Your task to perform on an android device: Do I have any events tomorrow? Image 0: 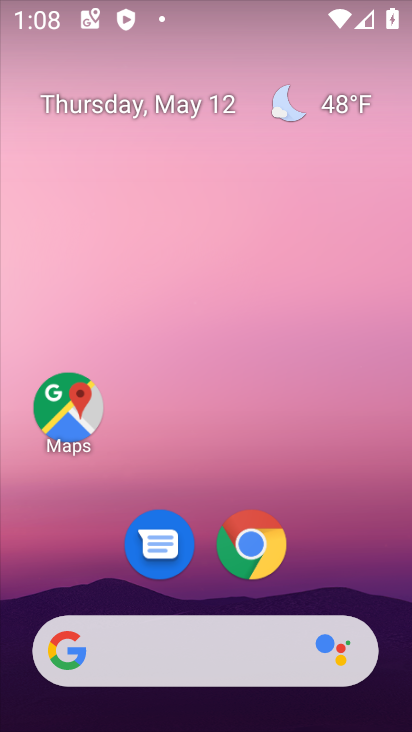
Step 0: drag from (336, 549) to (244, 23)
Your task to perform on an android device: Do I have any events tomorrow? Image 1: 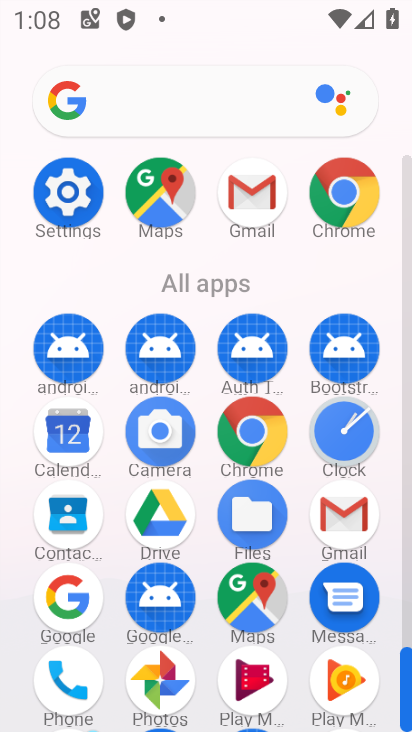
Step 1: drag from (7, 504) to (5, 257)
Your task to perform on an android device: Do I have any events tomorrow? Image 2: 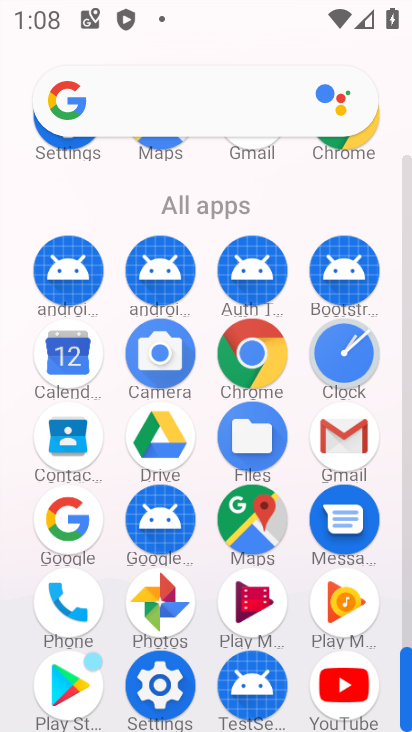
Step 2: drag from (34, 542) to (28, 260)
Your task to perform on an android device: Do I have any events tomorrow? Image 3: 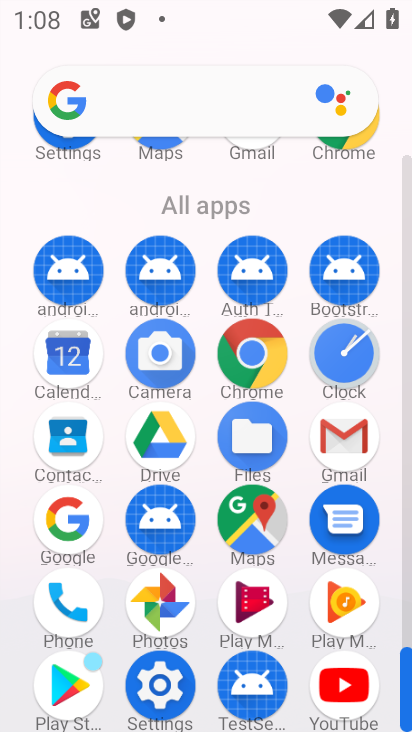
Step 3: click (66, 348)
Your task to perform on an android device: Do I have any events tomorrow? Image 4: 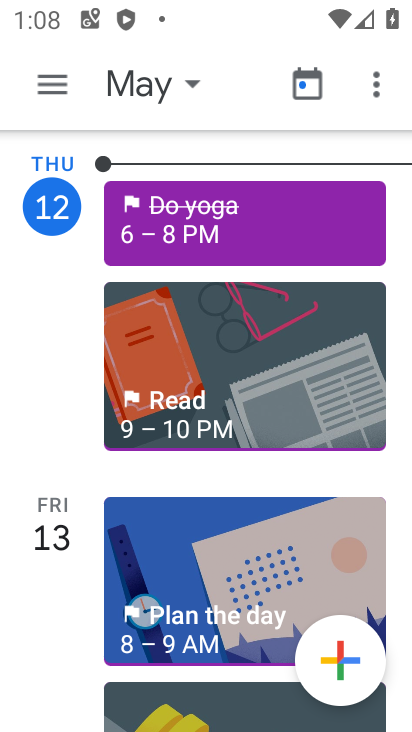
Step 4: click (50, 537)
Your task to perform on an android device: Do I have any events tomorrow? Image 5: 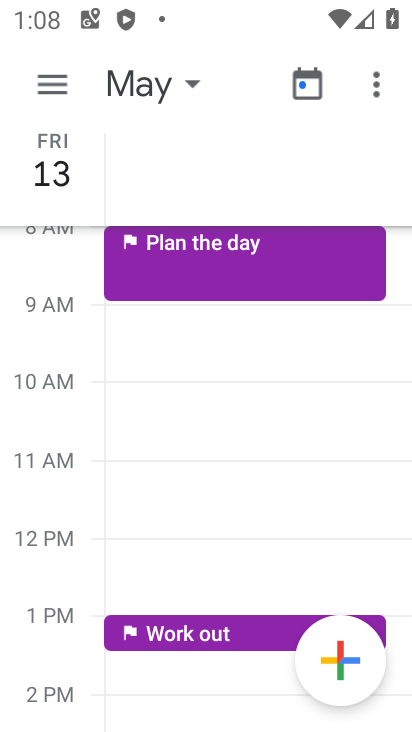
Step 5: task complete